Your task to perform on an android device: check google app version Image 0: 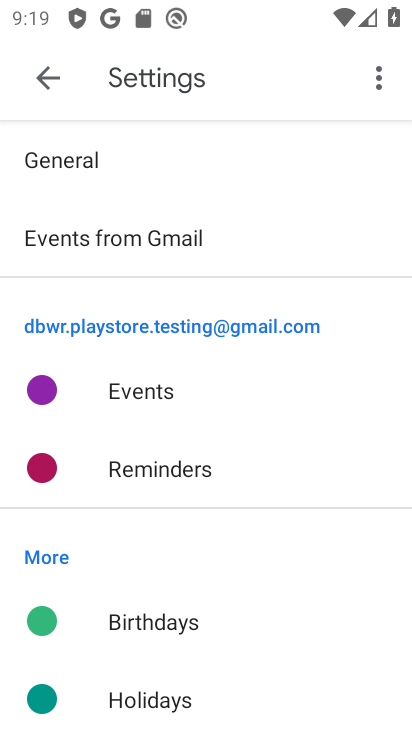
Step 0: press home button
Your task to perform on an android device: check google app version Image 1: 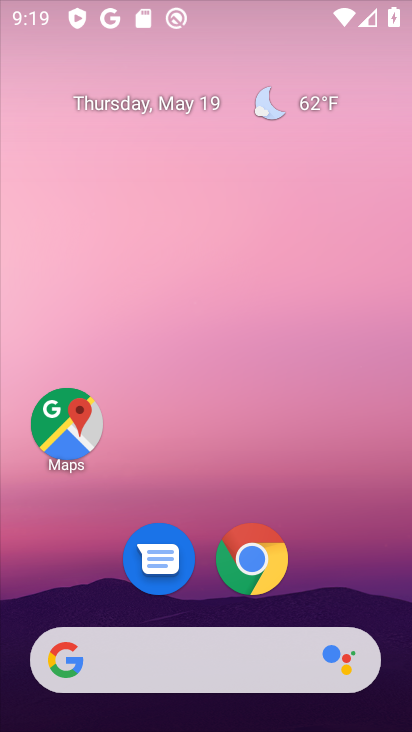
Step 1: drag from (288, 554) to (301, 153)
Your task to perform on an android device: check google app version Image 2: 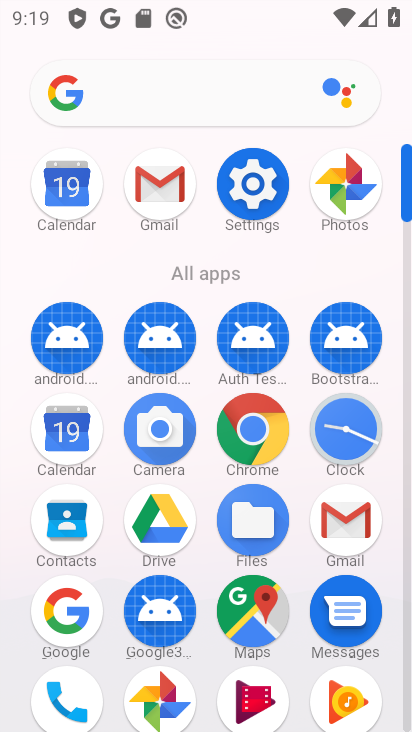
Step 2: click (57, 620)
Your task to perform on an android device: check google app version Image 3: 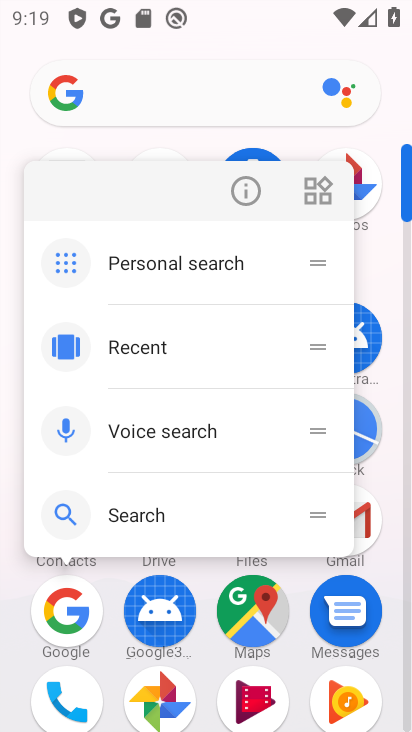
Step 3: click (250, 189)
Your task to perform on an android device: check google app version Image 4: 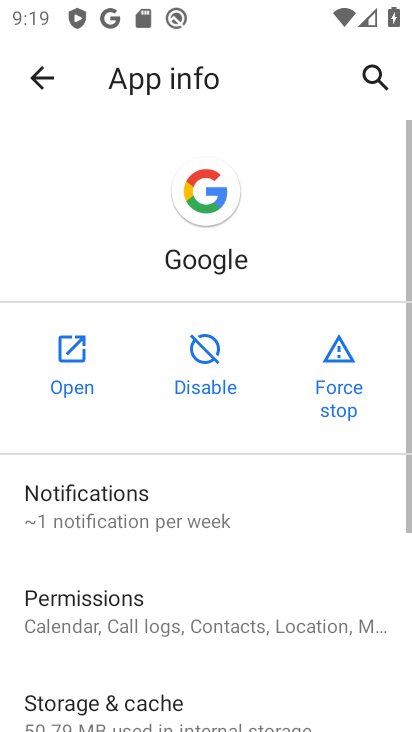
Step 4: drag from (270, 613) to (263, 199)
Your task to perform on an android device: check google app version Image 5: 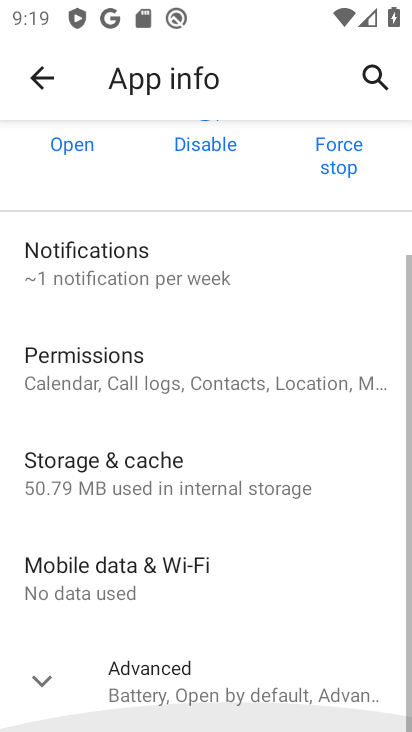
Step 5: click (260, 127)
Your task to perform on an android device: check google app version Image 6: 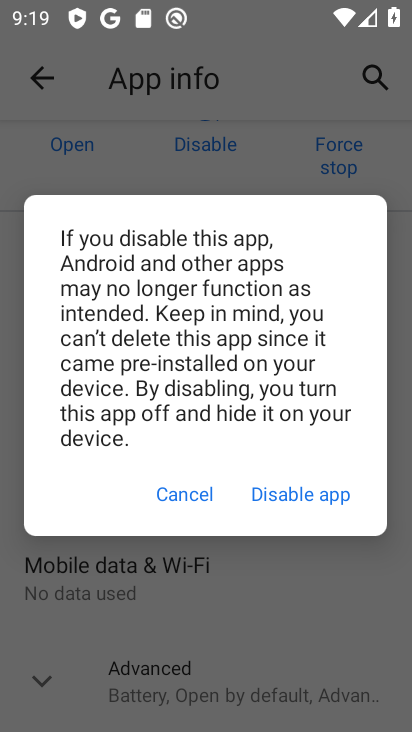
Step 6: click (167, 689)
Your task to perform on an android device: check google app version Image 7: 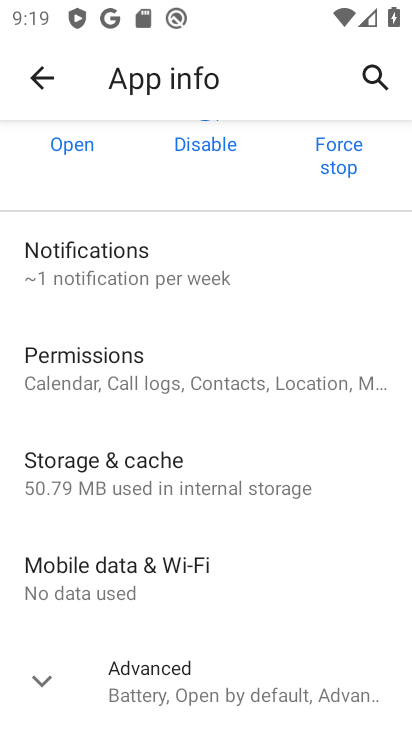
Step 7: click (167, 675)
Your task to perform on an android device: check google app version Image 8: 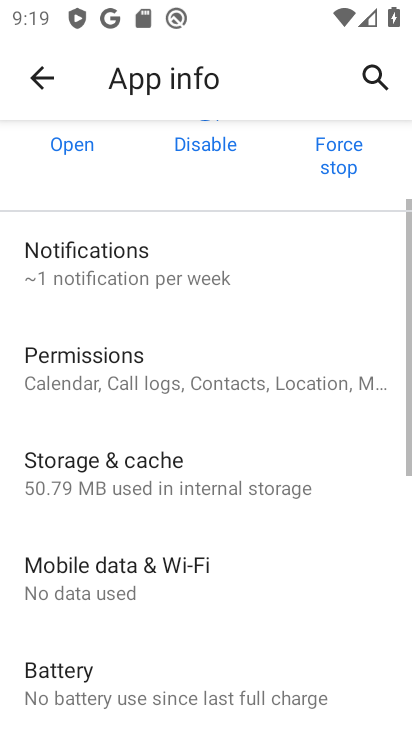
Step 8: task complete